Your task to perform on an android device: see creations saved in the google photos Image 0: 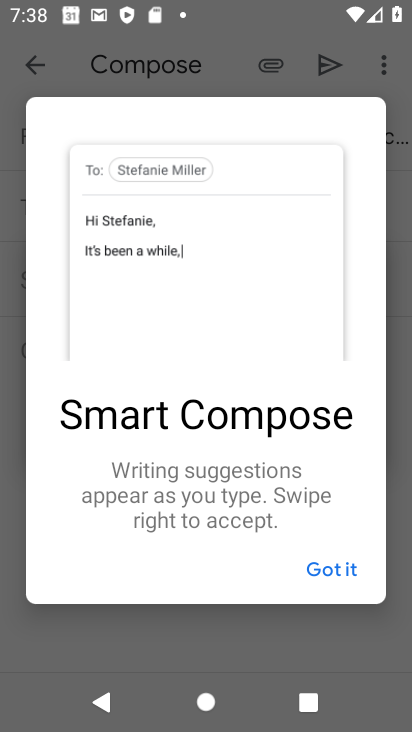
Step 0: press home button
Your task to perform on an android device: see creations saved in the google photos Image 1: 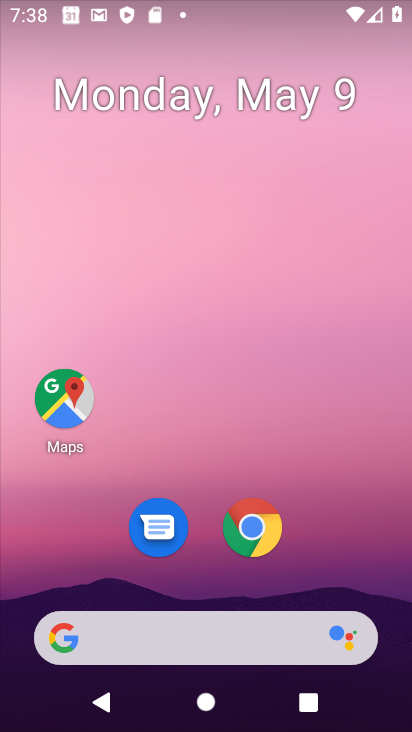
Step 1: drag from (280, 634) to (331, 128)
Your task to perform on an android device: see creations saved in the google photos Image 2: 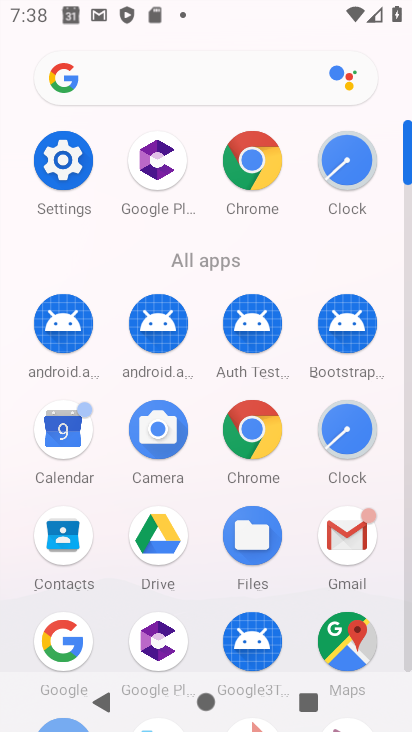
Step 2: click (406, 605)
Your task to perform on an android device: see creations saved in the google photos Image 3: 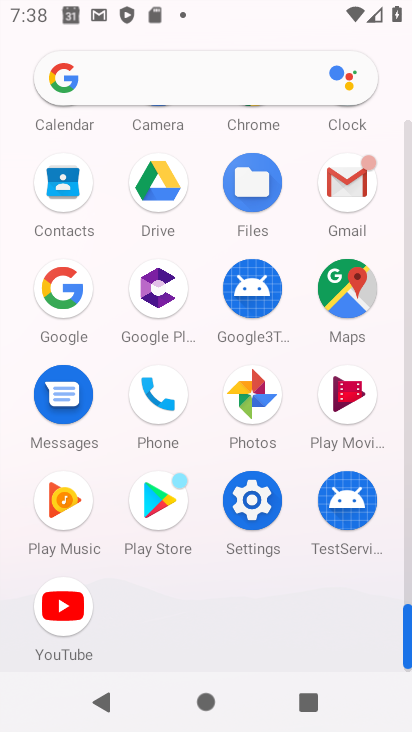
Step 3: click (410, 498)
Your task to perform on an android device: see creations saved in the google photos Image 4: 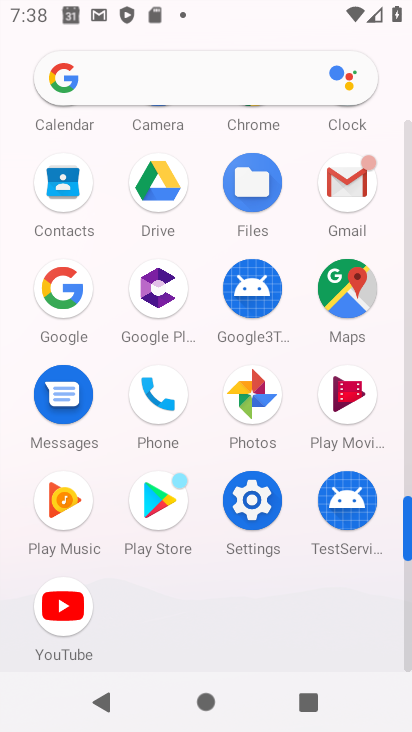
Step 4: click (409, 437)
Your task to perform on an android device: see creations saved in the google photos Image 5: 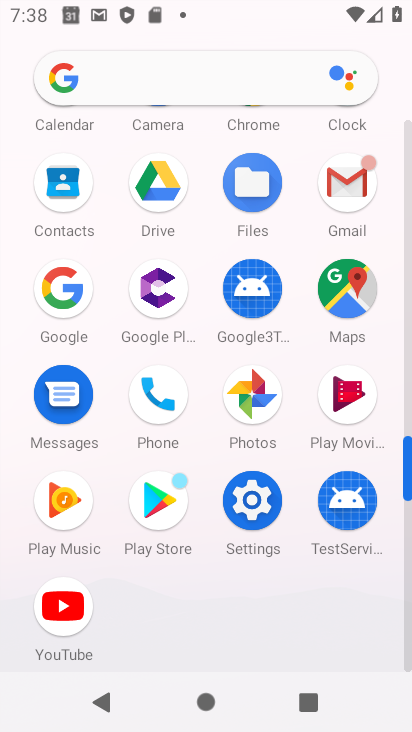
Step 5: click (407, 338)
Your task to perform on an android device: see creations saved in the google photos Image 6: 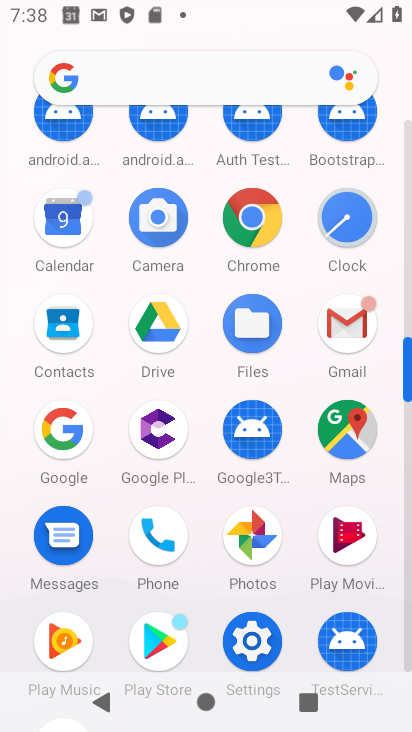
Step 6: click (265, 541)
Your task to perform on an android device: see creations saved in the google photos Image 7: 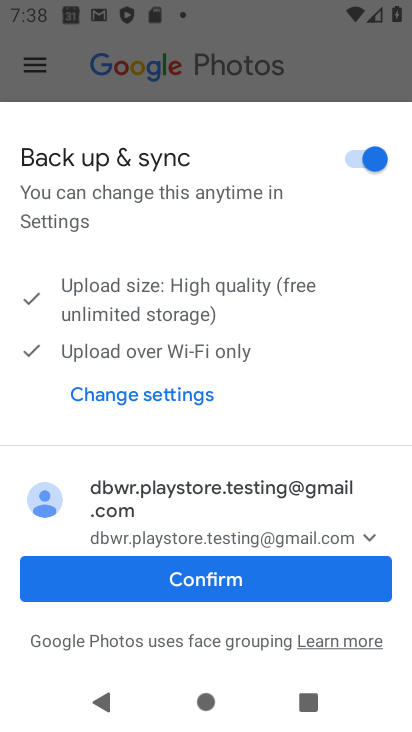
Step 7: click (228, 576)
Your task to perform on an android device: see creations saved in the google photos Image 8: 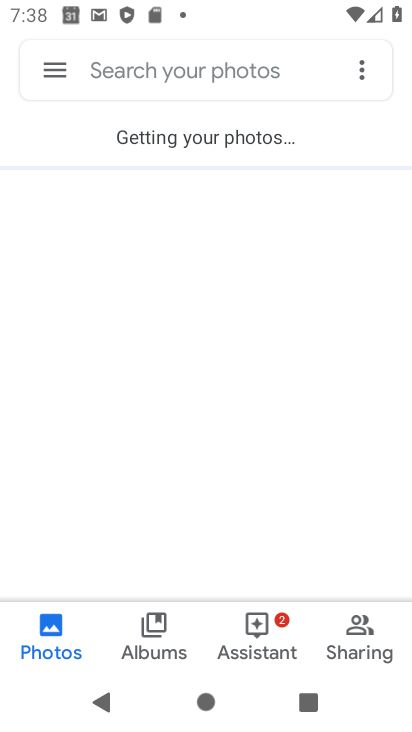
Step 8: task complete